Your task to perform on an android device: Show me the alarms in the clock app Image 0: 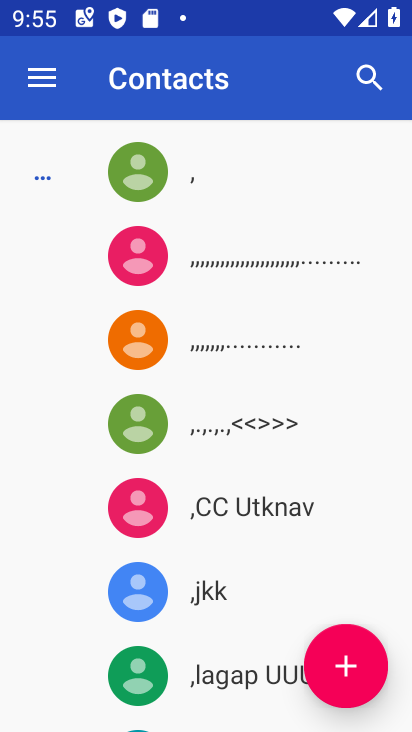
Step 0: press home button
Your task to perform on an android device: Show me the alarms in the clock app Image 1: 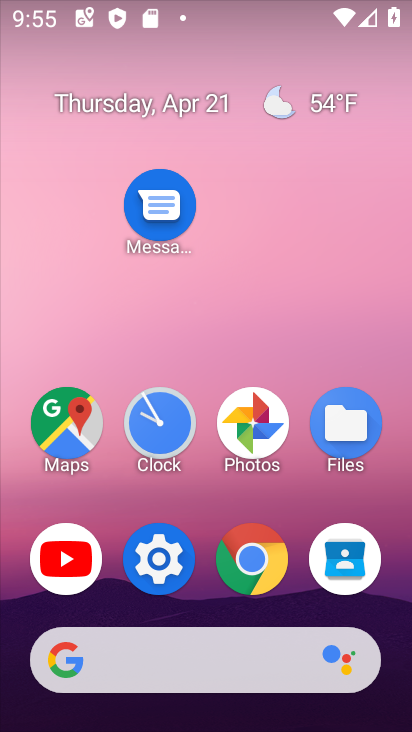
Step 1: click (155, 433)
Your task to perform on an android device: Show me the alarms in the clock app Image 2: 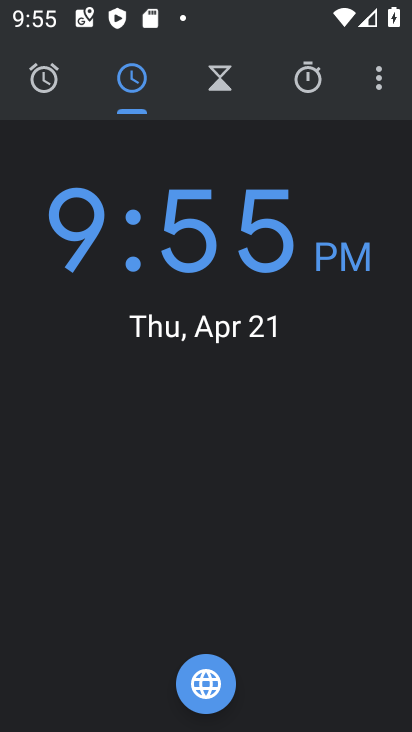
Step 2: click (38, 71)
Your task to perform on an android device: Show me the alarms in the clock app Image 3: 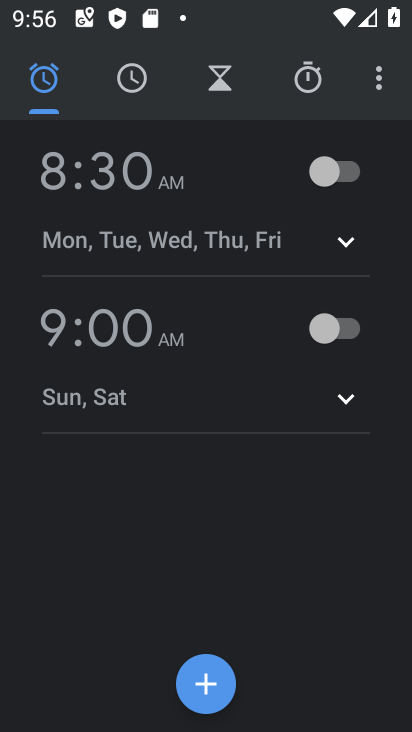
Step 3: task complete